Your task to perform on an android device: check the backup settings in the google photos Image 0: 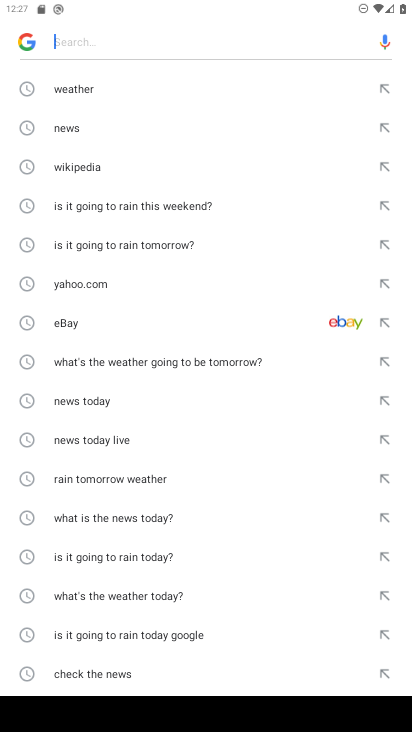
Step 0: press home button
Your task to perform on an android device: check the backup settings in the google photos Image 1: 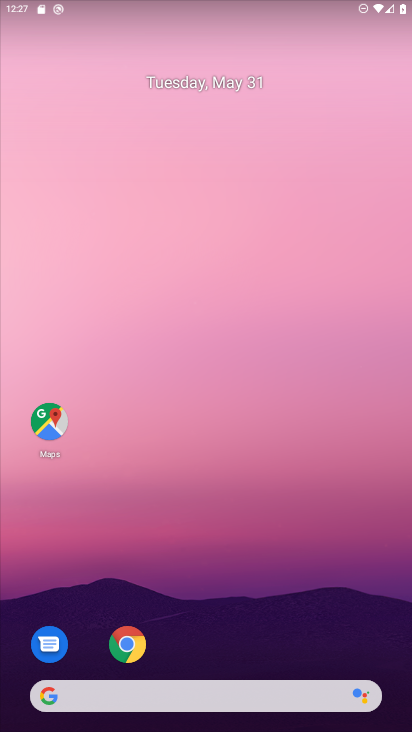
Step 1: drag from (206, 657) to (281, 2)
Your task to perform on an android device: check the backup settings in the google photos Image 2: 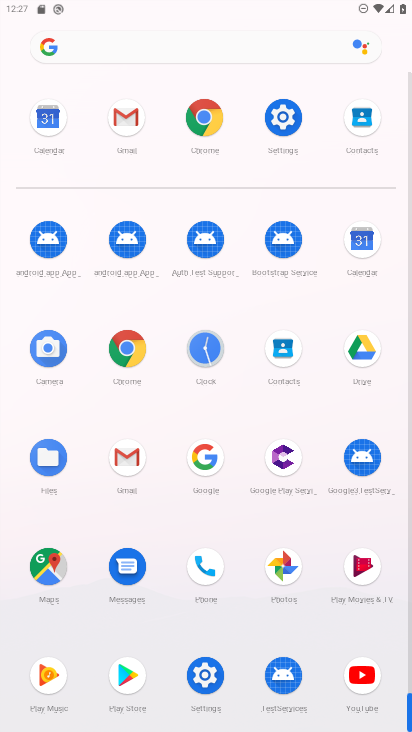
Step 2: click (275, 576)
Your task to perform on an android device: check the backup settings in the google photos Image 3: 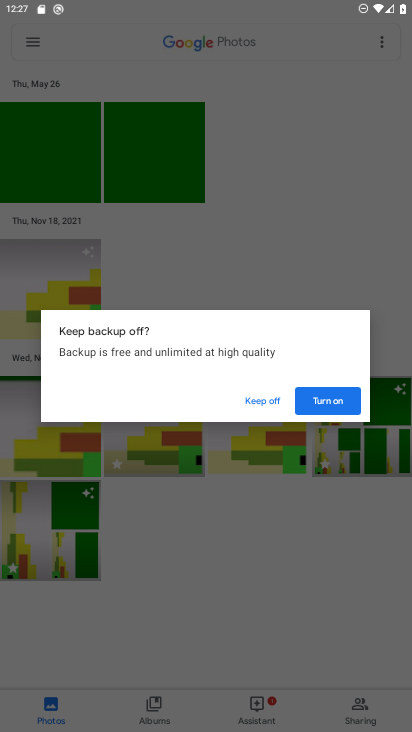
Step 3: click (318, 400)
Your task to perform on an android device: check the backup settings in the google photos Image 4: 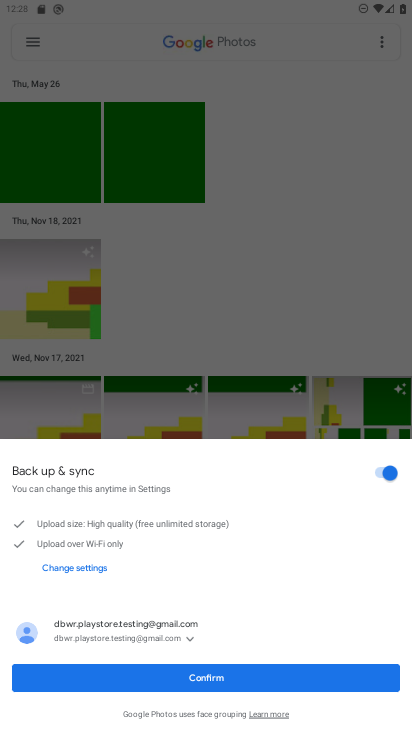
Step 4: click (239, 687)
Your task to perform on an android device: check the backup settings in the google photos Image 5: 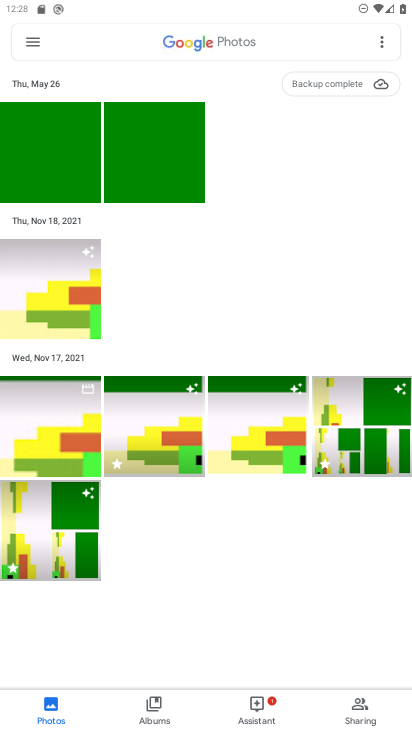
Step 5: drag from (206, 600) to (299, 129)
Your task to perform on an android device: check the backup settings in the google photos Image 6: 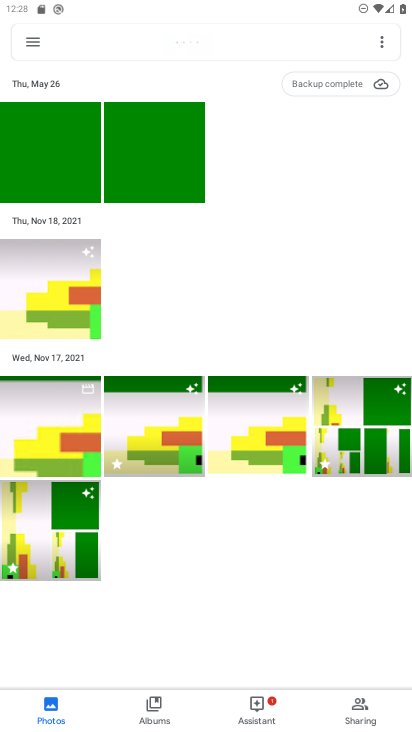
Step 6: drag from (245, 214) to (246, 574)
Your task to perform on an android device: check the backup settings in the google photos Image 7: 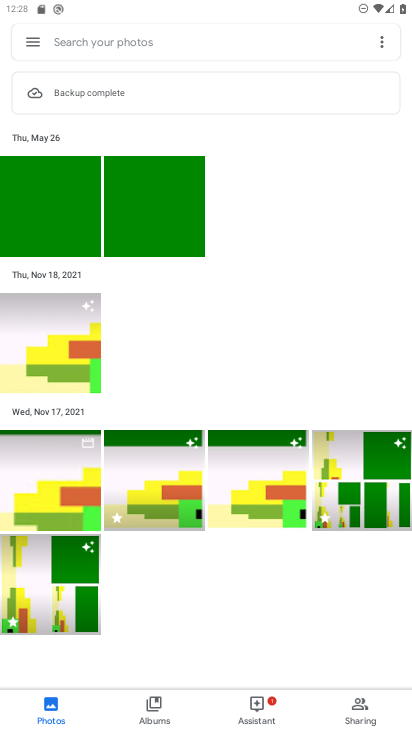
Step 7: click (344, 707)
Your task to perform on an android device: check the backup settings in the google photos Image 8: 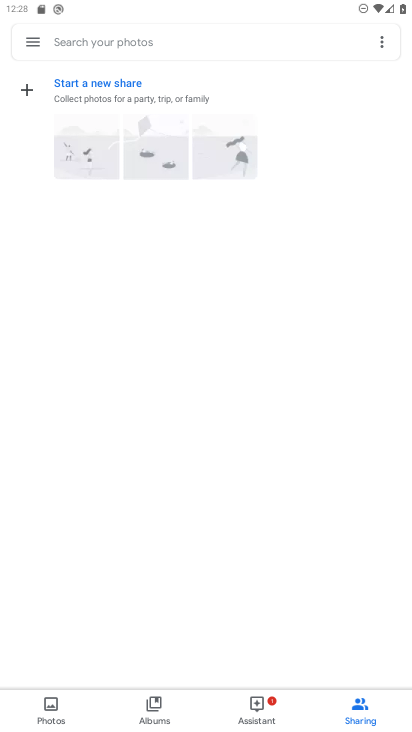
Step 8: click (29, 33)
Your task to perform on an android device: check the backup settings in the google photos Image 9: 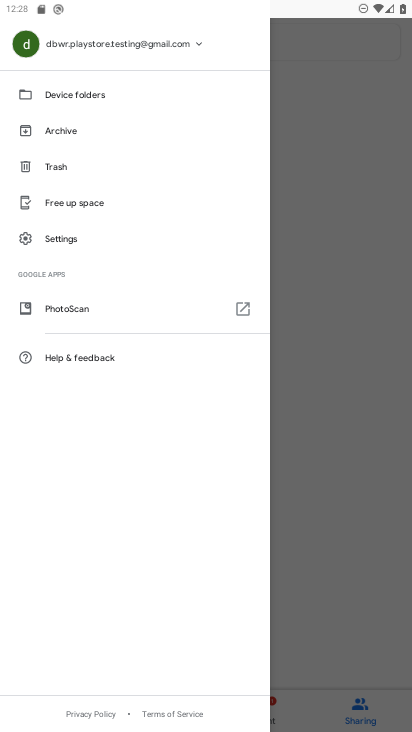
Step 9: click (68, 238)
Your task to perform on an android device: check the backup settings in the google photos Image 10: 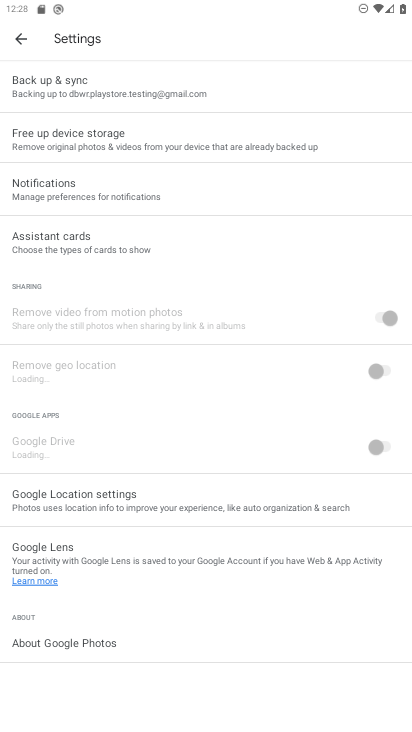
Step 10: drag from (146, 129) to (152, 511)
Your task to perform on an android device: check the backup settings in the google photos Image 11: 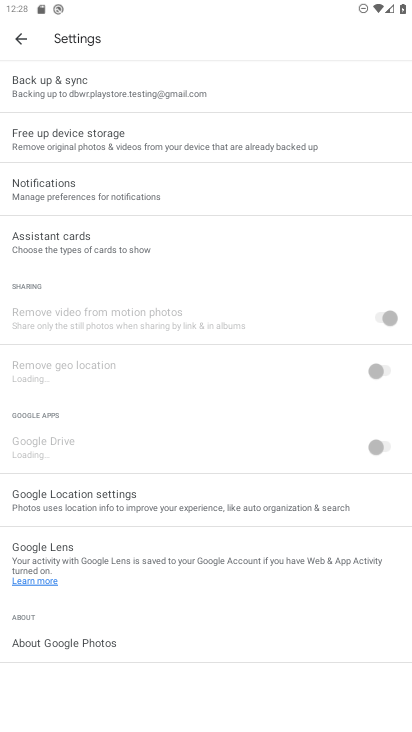
Step 11: click (108, 83)
Your task to perform on an android device: check the backup settings in the google photos Image 12: 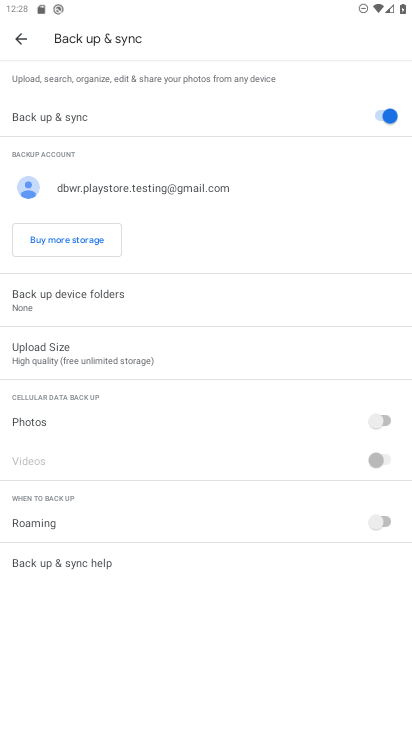
Step 12: task complete